Your task to perform on an android device: Open accessibility settings Image 0: 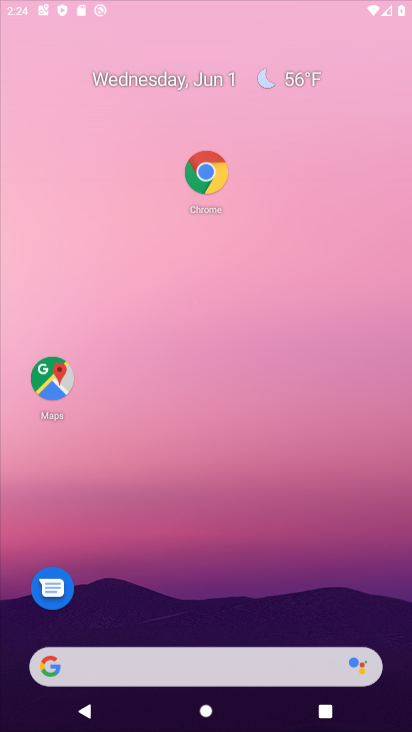
Step 0: drag from (235, 390) to (234, 129)
Your task to perform on an android device: Open accessibility settings Image 1: 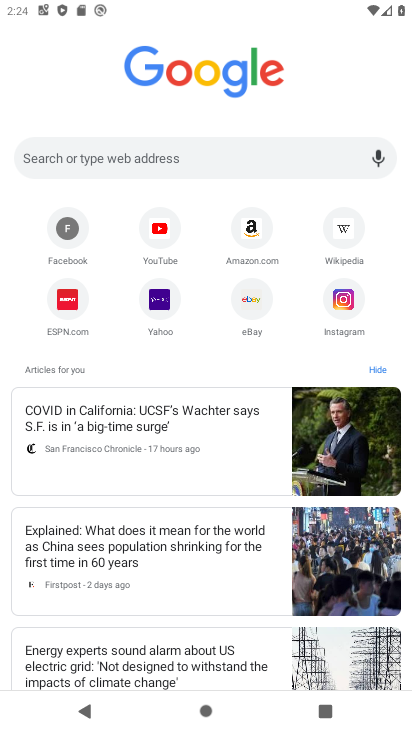
Step 1: press home button
Your task to perform on an android device: Open accessibility settings Image 2: 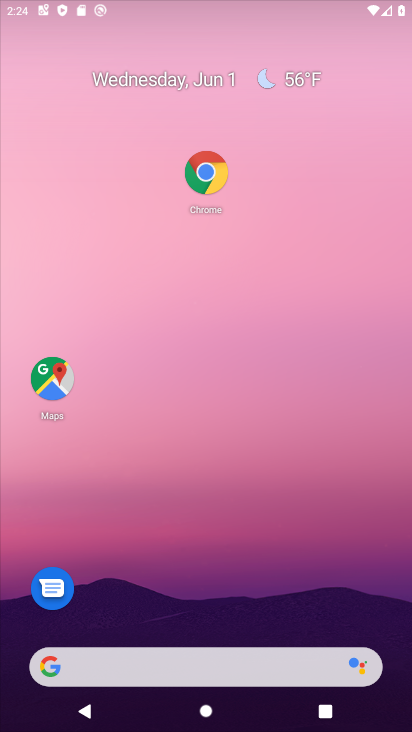
Step 2: drag from (232, 575) to (252, 58)
Your task to perform on an android device: Open accessibility settings Image 3: 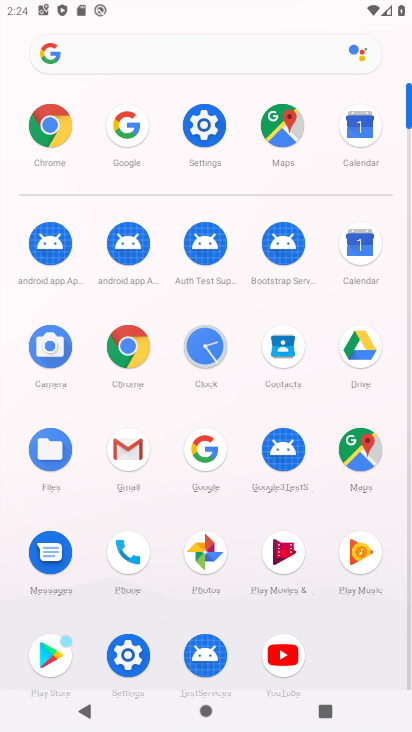
Step 3: click (196, 121)
Your task to perform on an android device: Open accessibility settings Image 4: 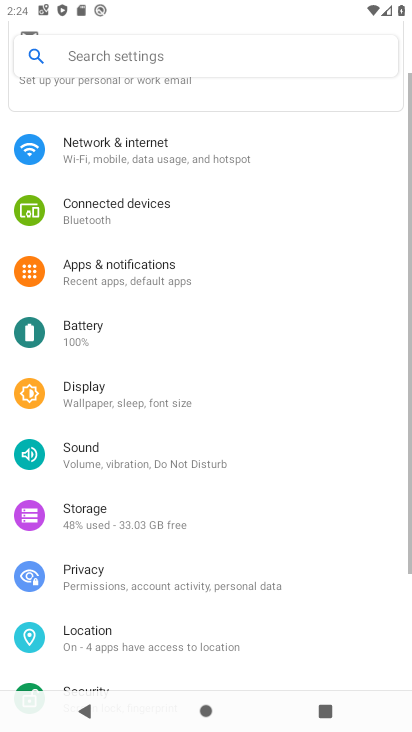
Step 4: drag from (181, 627) to (258, 41)
Your task to perform on an android device: Open accessibility settings Image 5: 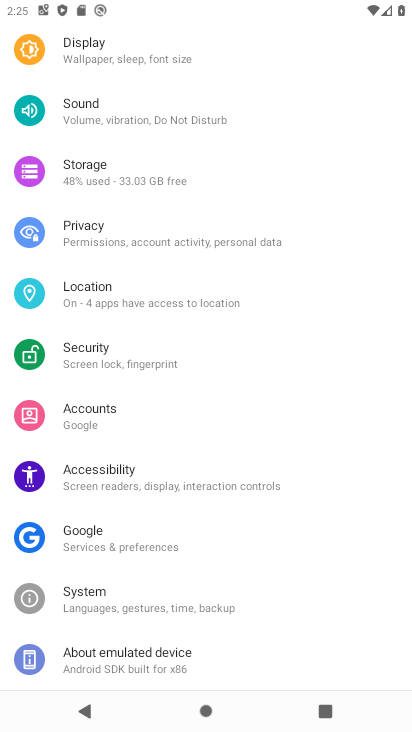
Step 5: click (106, 488)
Your task to perform on an android device: Open accessibility settings Image 6: 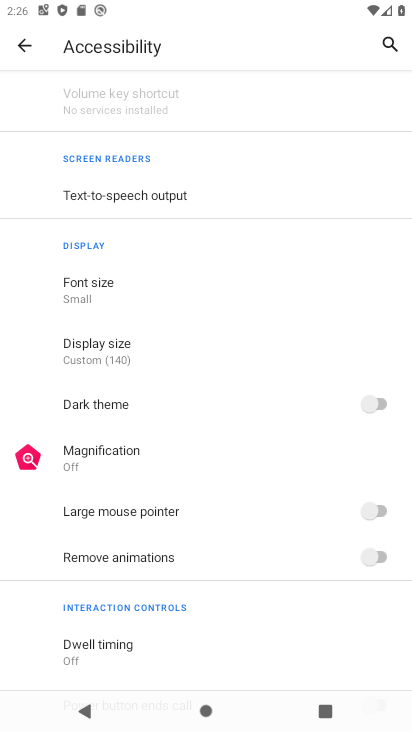
Step 6: task complete